Your task to perform on an android device: Search for seafood restaurants on Google Maps Image 0: 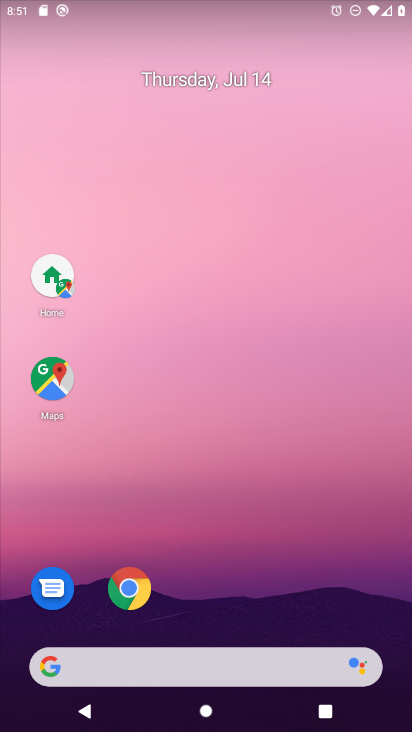
Step 0: click (69, 384)
Your task to perform on an android device: Search for seafood restaurants on Google Maps Image 1: 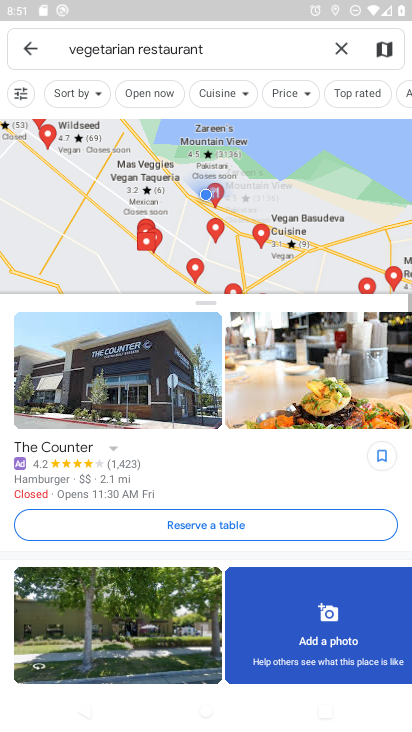
Step 1: click (333, 47)
Your task to perform on an android device: Search for seafood restaurants on Google Maps Image 2: 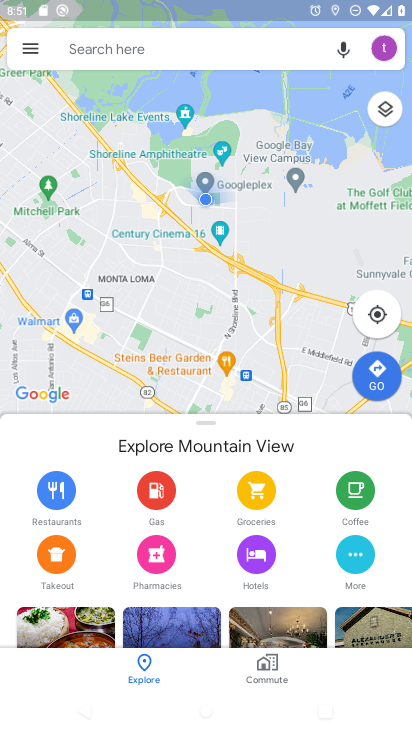
Step 2: click (92, 51)
Your task to perform on an android device: Search for seafood restaurants on Google Maps Image 3: 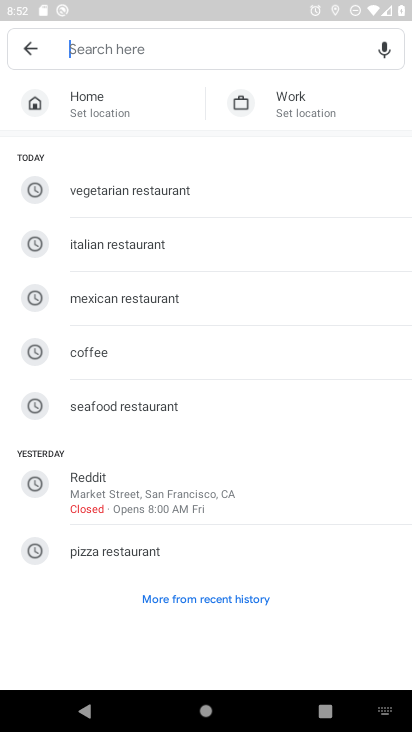
Step 3: click (125, 404)
Your task to perform on an android device: Search for seafood restaurants on Google Maps Image 4: 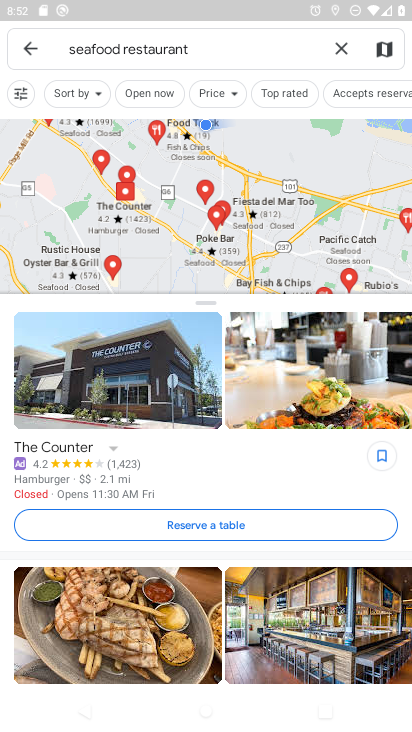
Step 4: task complete